Your task to perform on an android device: open chrome and create a bookmark for the current page Image 0: 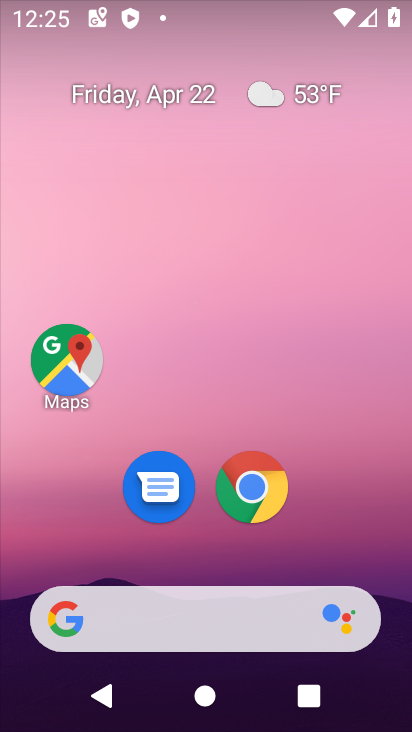
Step 0: click (267, 492)
Your task to perform on an android device: open chrome and create a bookmark for the current page Image 1: 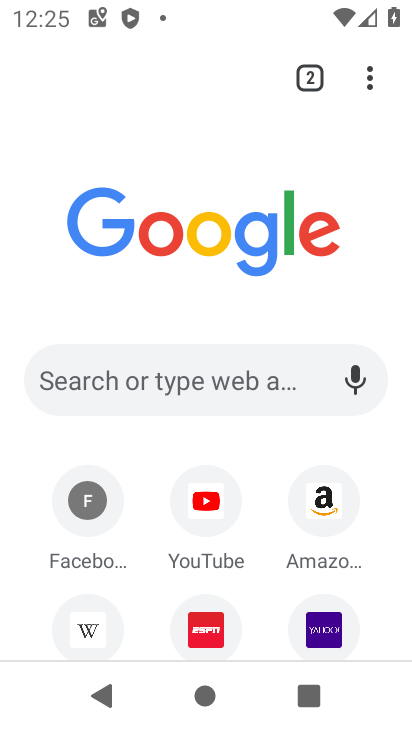
Step 1: task complete